Your task to perform on an android device: What's the weather going to be tomorrow? Image 0: 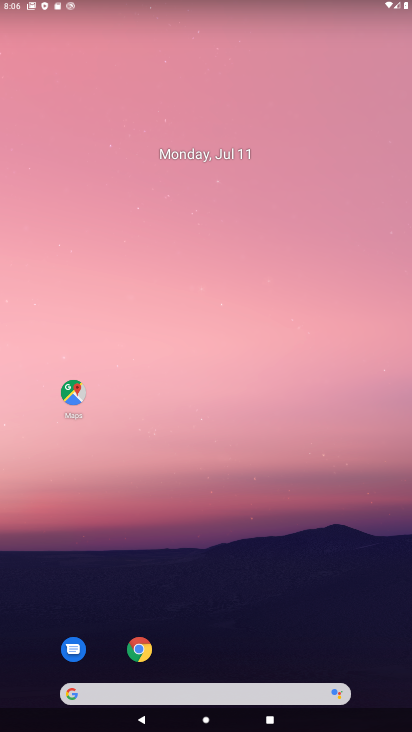
Step 0: drag from (181, 237) to (201, 0)
Your task to perform on an android device: What's the weather going to be tomorrow? Image 1: 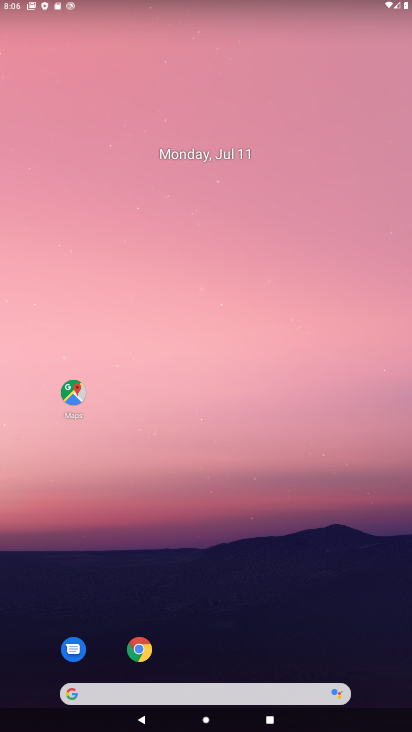
Step 1: click (169, 696)
Your task to perform on an android device: What's the weather going to be tomorrow? Image 2: 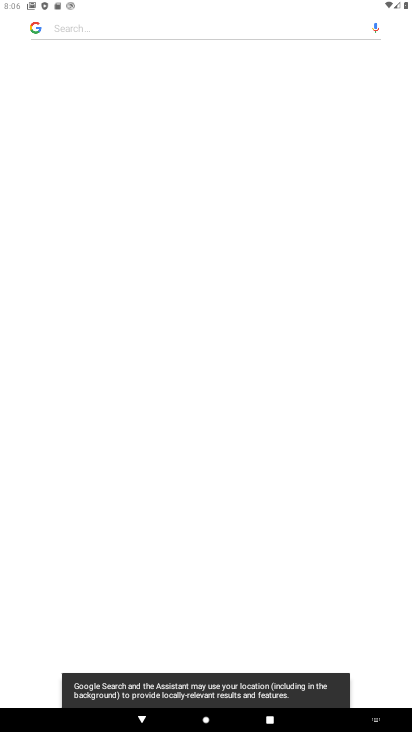
Step 2: type "What's the weather going to be tomorrow?"
Your task to perform on an android device: What's the weather going to be tomorrow? Image 3: 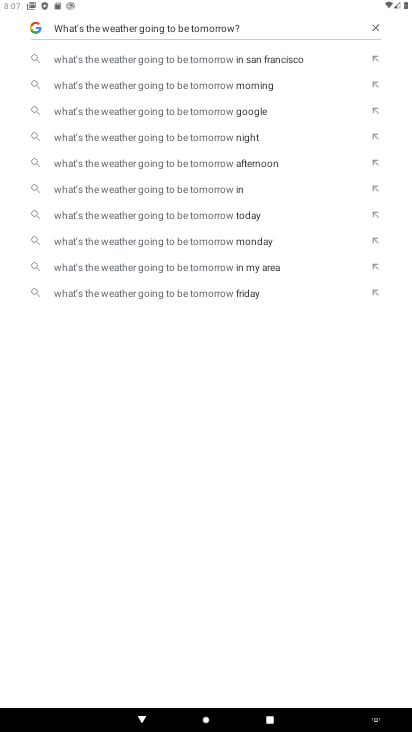
Step 3: press enter
Your task to perform on an android device: What's the weather going to be tomorrow? Image 4: 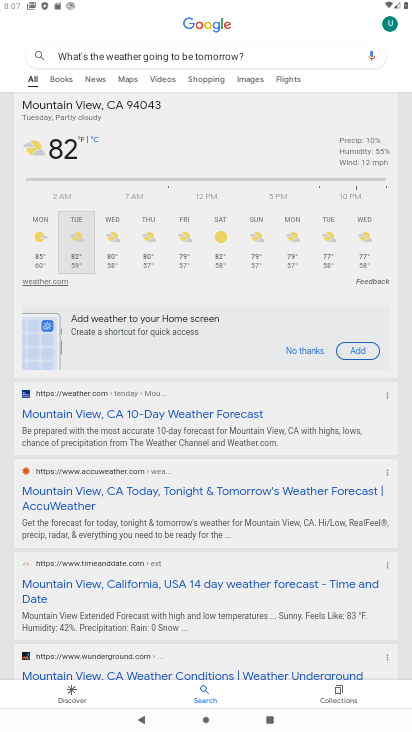
Step 4: task complete